Your task to perform on an android device: toggle notifications settings in the gmail app Image 0: 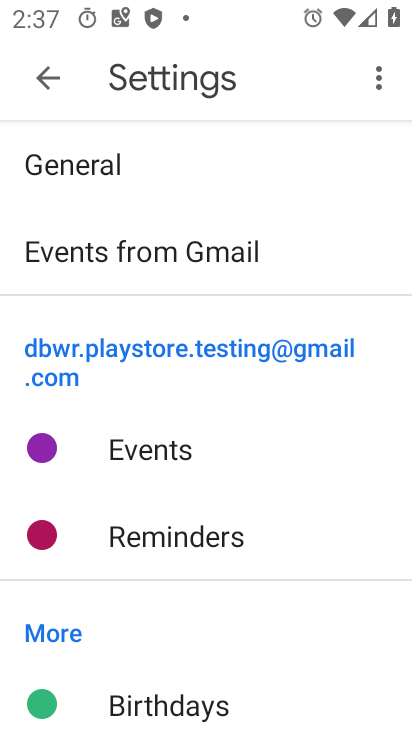
Step 0: press home button
Your task to perform on an android device: toggle notifications settings in the gmail app Image 1: 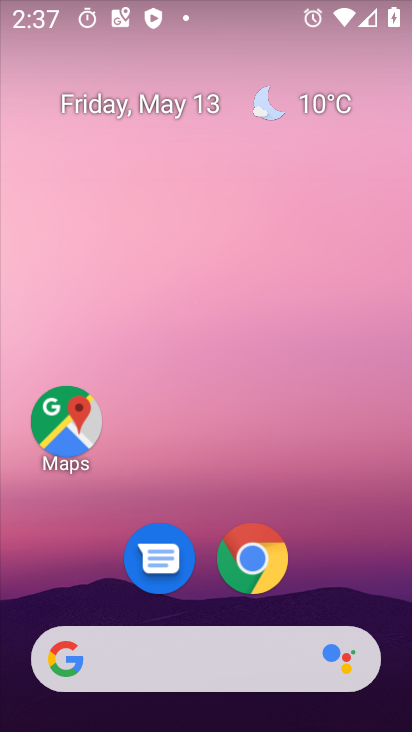
Step 1: drag from (219, 597) to (270, 216)
Your task to perform on an android device: toggle notifications settings in the gmail app Image 2: 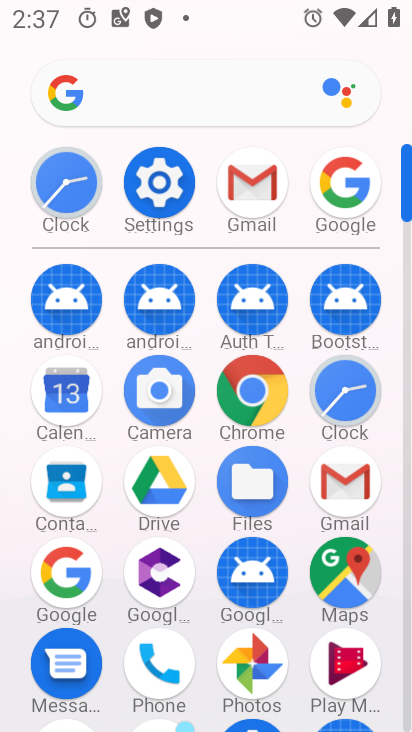
Step 2: click (271, 211)
Your task to perform on an android device: toggle notifications settings in the gmail app Image 3: 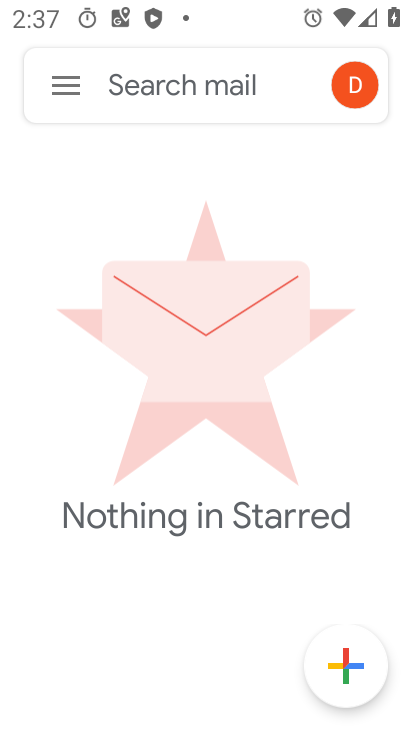
Step 3: click (57, 90)
Your task to perform on an android device: toggle notifications settings in the gmail app Image 4: 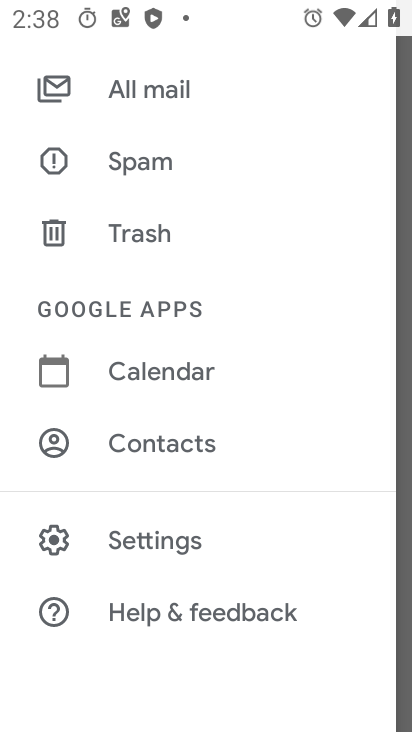
Step 4: click (195, 538)
Your task to perform on an android device: toggle notifications settings in the gmail app Image 5: 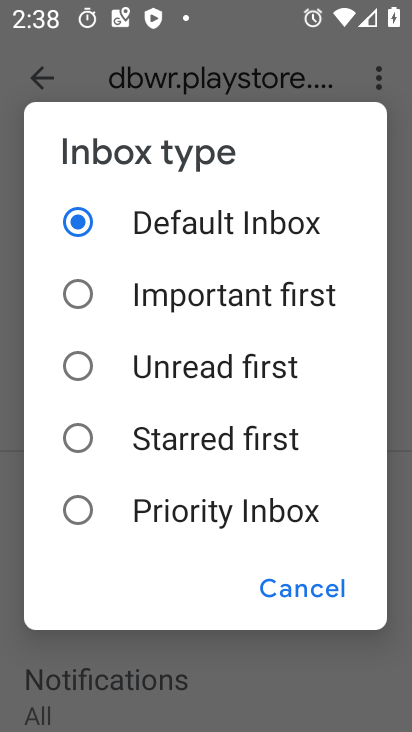
Step 5: click (270, 577)
Your task to perform on an android device: toggle notifications settings in the gmail app Image 6: 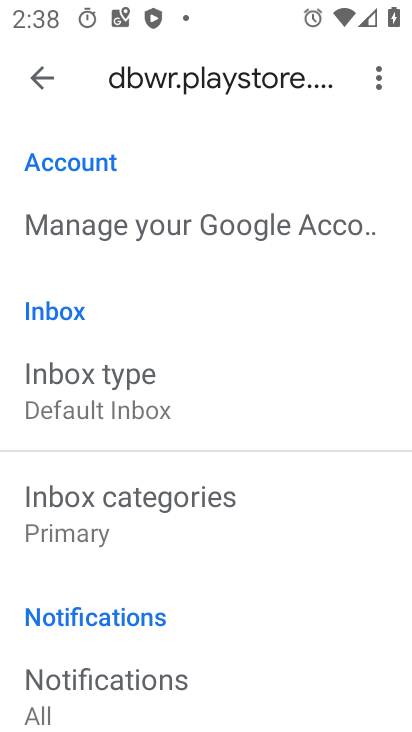
Step 6: drag from (220, 590) to (240, 235)
Your task to perform on an android device: toggle notifications settings in the gmail app Image 7: 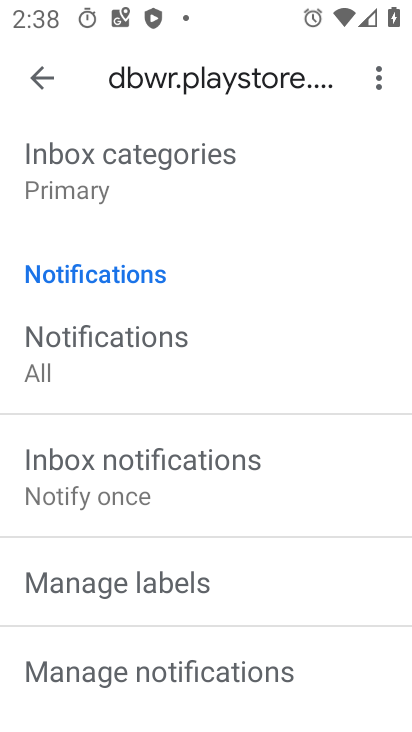
Step 7: drag from (176, 620) to (200, 496)
Your task to perform on an android device: toggle notifications settings in the gmail app Image 8: 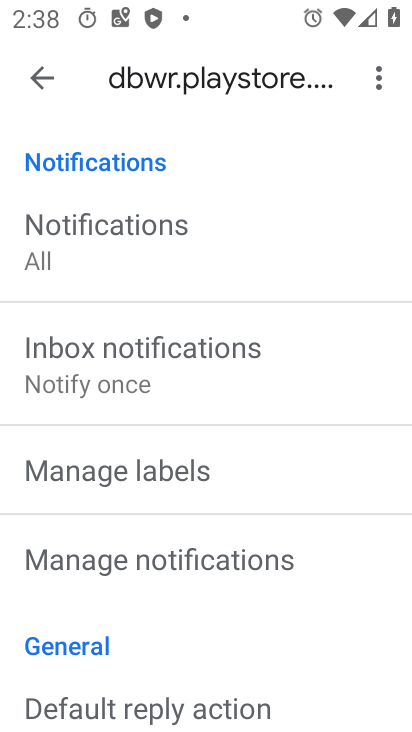
Step 8: click (189, 544)
Your task to perform on an android device: toggle notifications settings in the gmail app Image 9: 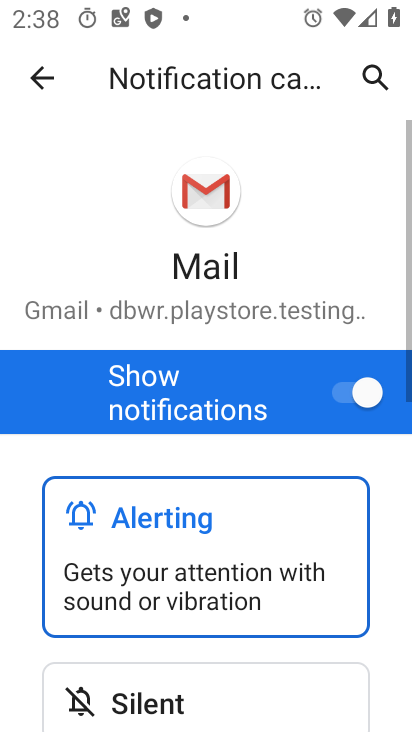
Step 9: drag from (232, 586) to (249, 452)
Your task to perform on an android device: toggle notifications settings in the gmail app Image 10: 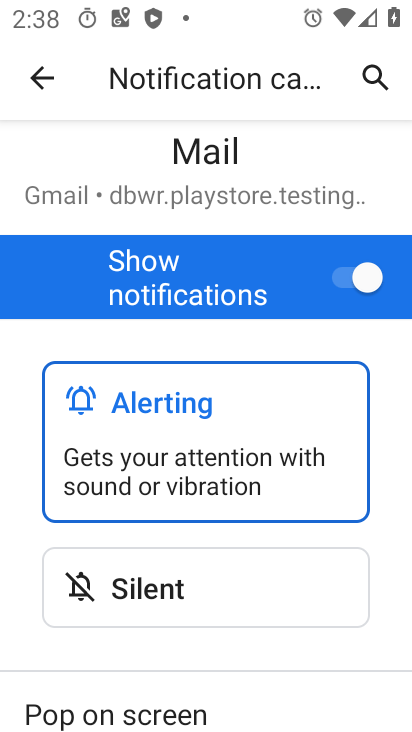
Step 10: drag from (243, 663) to (227, 374)
Your task to perform on an android device: toggle notifications settings in the gmail app Image 11: 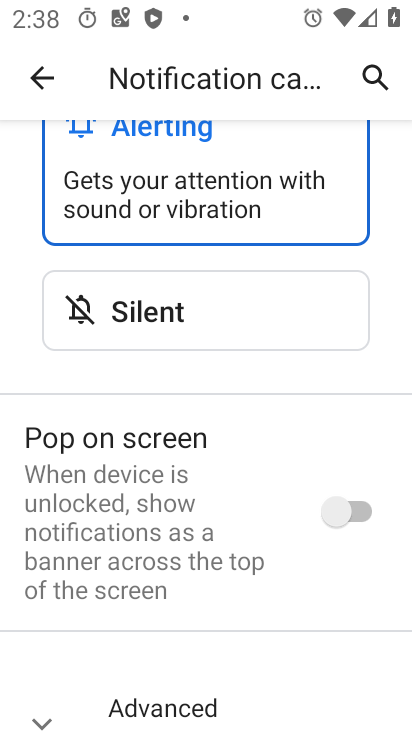
Step 11: drag from (242, 587) to (237, 314)
Your task to perform on an android device: toggle notifications settings in the gmail app Image 12: 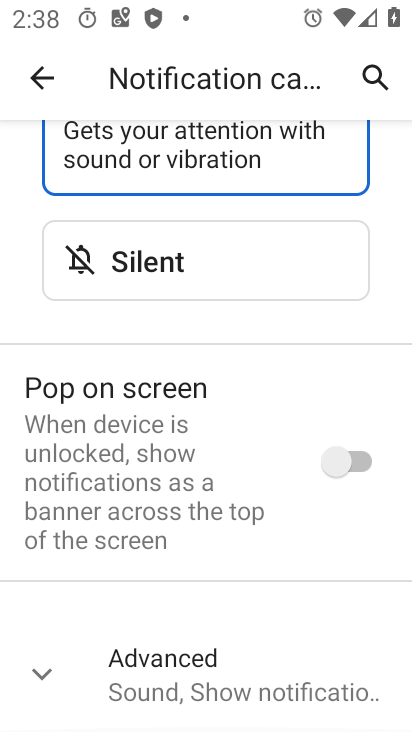
Step 12: drag from (224, 609) to (220, 384)
Your task to perform on an android device: toggle notifications settings in the gmail app Image 13: 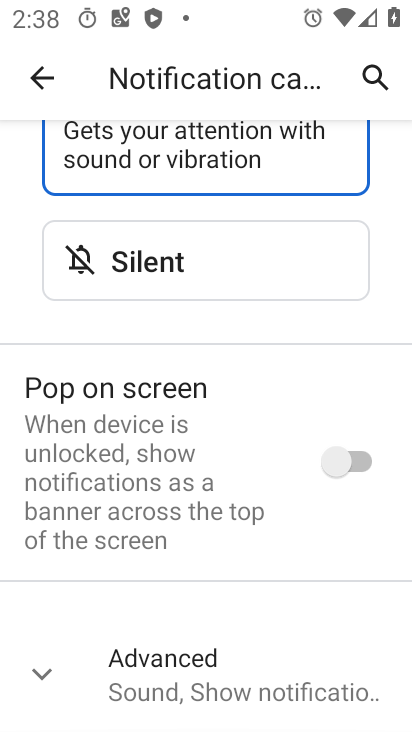
Step 13: drag from (229, 301) to (225, 595)
Your task to perform on an android device: toggle notifications settings in the gmail app Image 14: 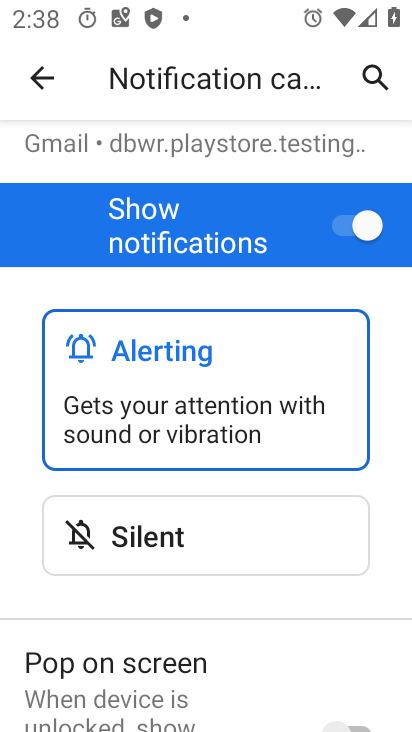
Step 14: click (341, 241)
Your task to perform on an android device: toggle notifications settings in the gmail app Image 15: 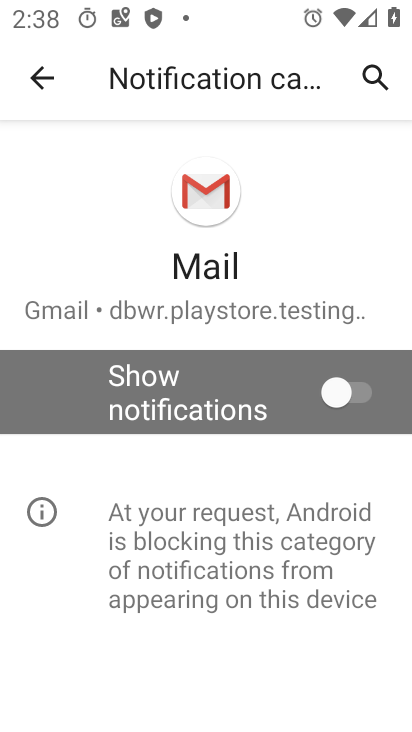
Step 15: task complete